Your task to perform on an android device: Open CNN.com Image 0: 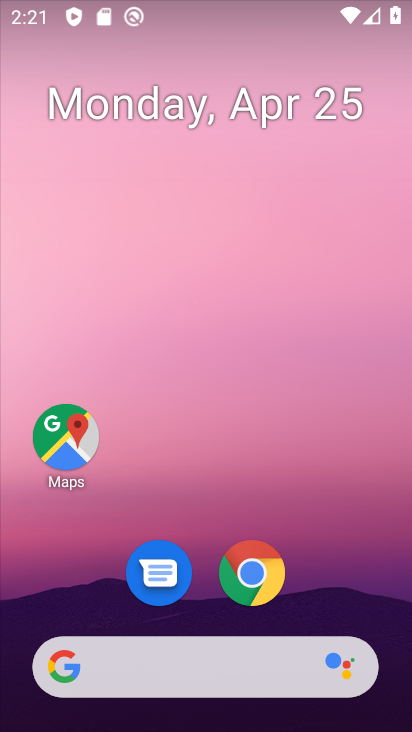
Step 0: click (287, 563)
Your task to perform on an android device: Open CNN.com Image 1: 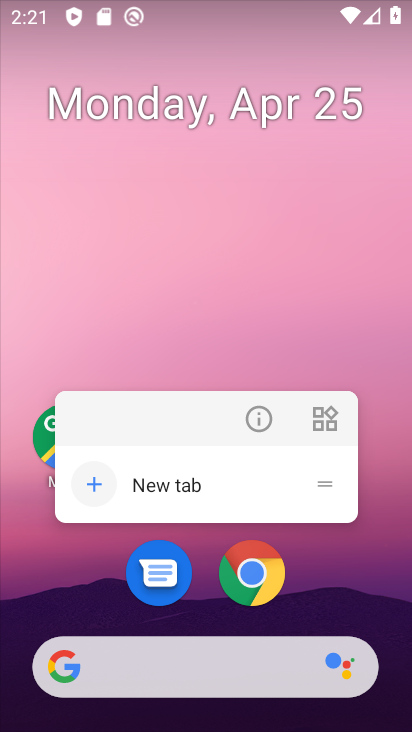
Step 1: click (267, 570)
Your task to perform on an android device: Open CNN.com Image 2: 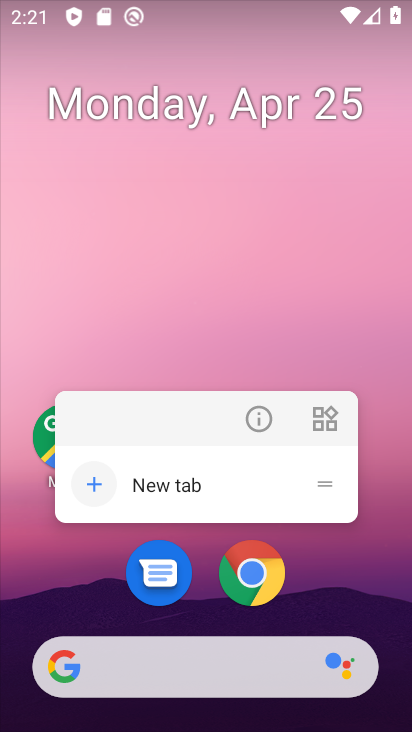
Step 2: click (267, 568)
Your task to perform on an android device: Open CNN.com Image 3: 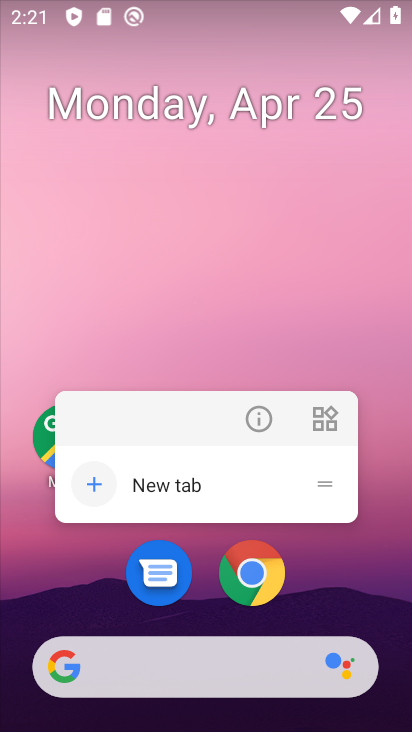
Step 3: click (267, 567)
Your task to perform on an android device: Open CNN.com Image 4: 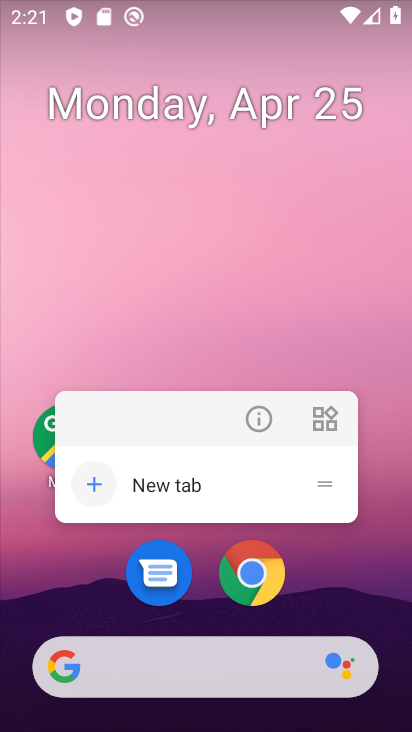
Step 4: click (267, 567)
Your task to perform on an android device: Open CNN.com Image 5: 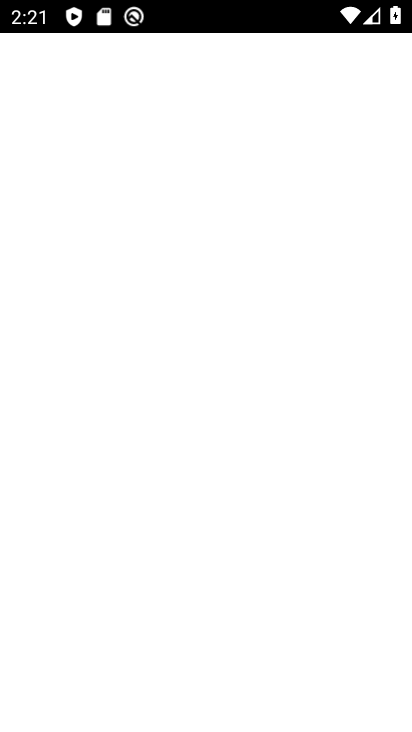
Step 5: click (267, 567)
Your task to perform on an android device: Open CNN.com Image 6: 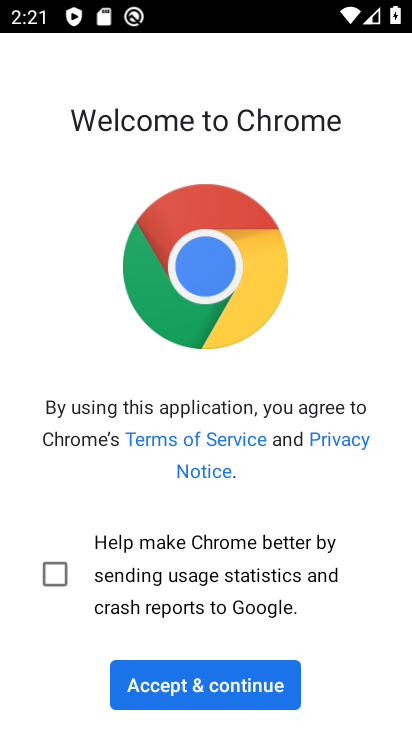
Step 6: click (136, 695)
Your task to perform on an android device: Open CNN.com Image 7: 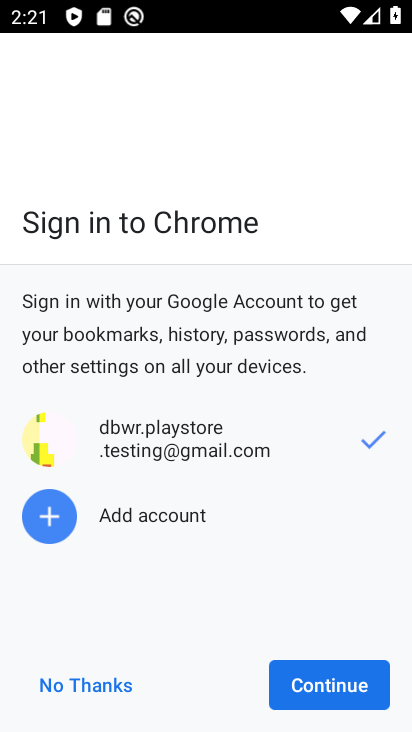
Step 7: click (85, 696)
Your task to perform on an android device: Open CNN.com Image 8: 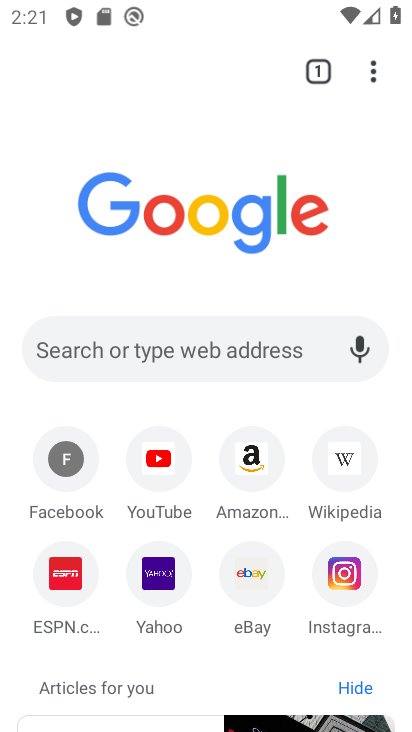
Step 8: click (184, 352)
Your task to perform on an android device: Open CNN.com Image 9: 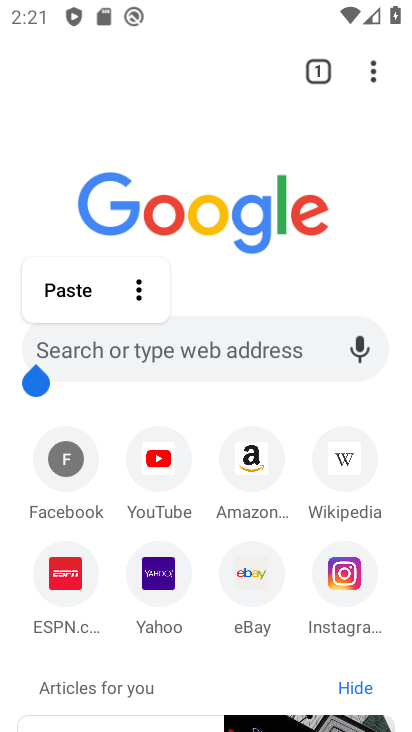
Step 9: click (211, 332)
Your task to perform on an android device: Open CNN.com Image 10: 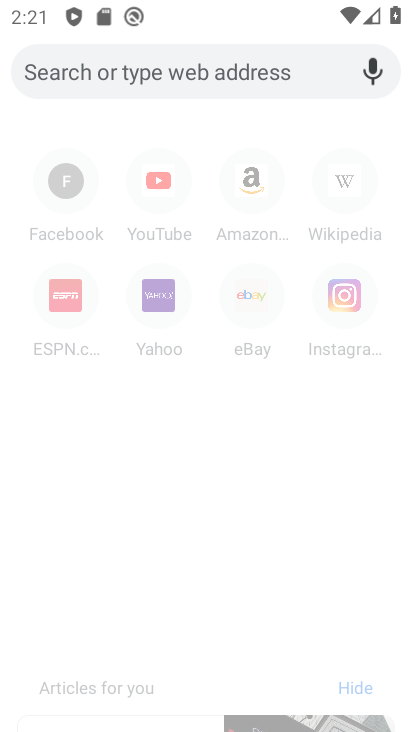
Step 10: click (202, 346)
Your task to perform on an android device: Open CNN.com Image 11: 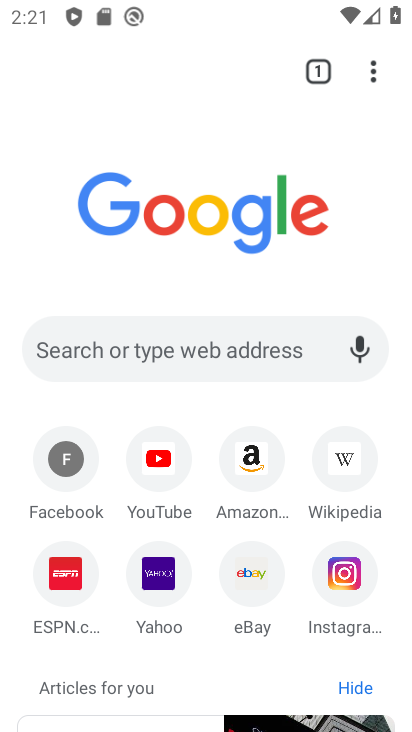
Step 11: click (177, 333)
Your task to perform on an android device: Open CNN.com Image 12: 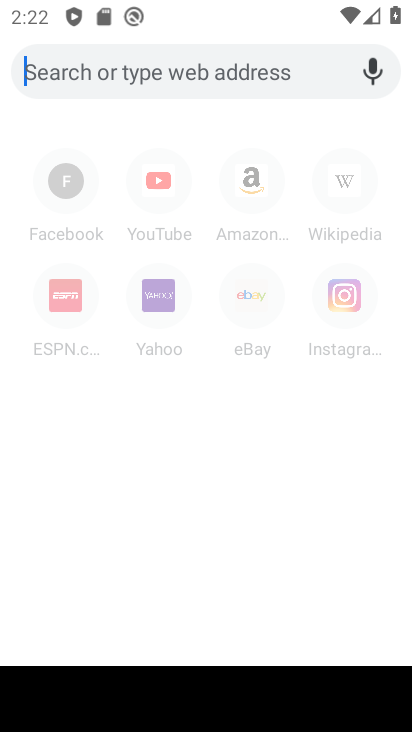
Step 12: type "cnn.com"
Your task to perform on an android device: Open CNN.com Image 13: 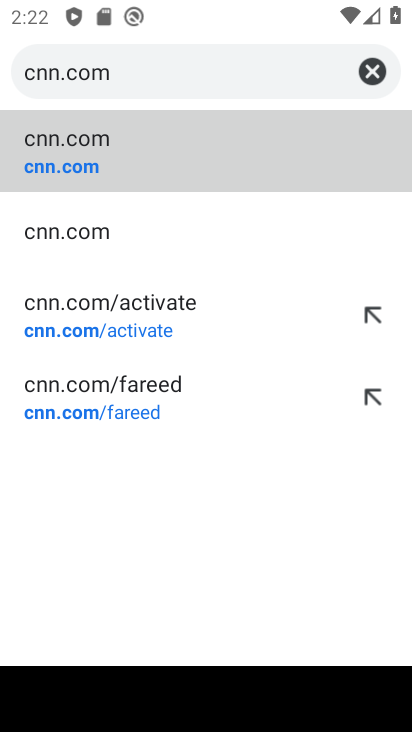
Step 13: click (119, 159)
Your task to perform on an android device: Open CNN.com Image 14: 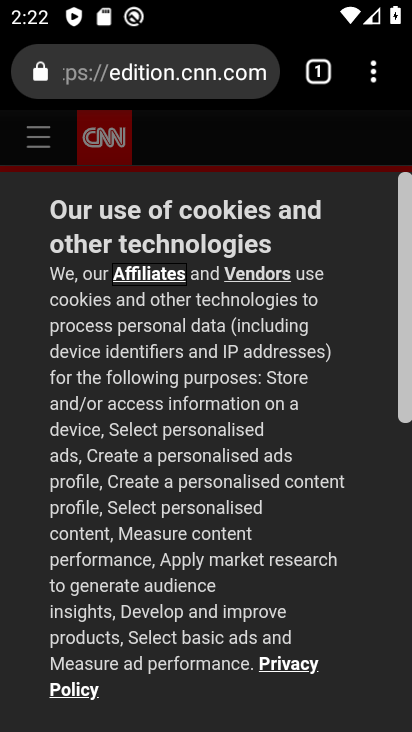
Step 14: task complete